Your task to perform on an android device: Open sound settings Image 0: 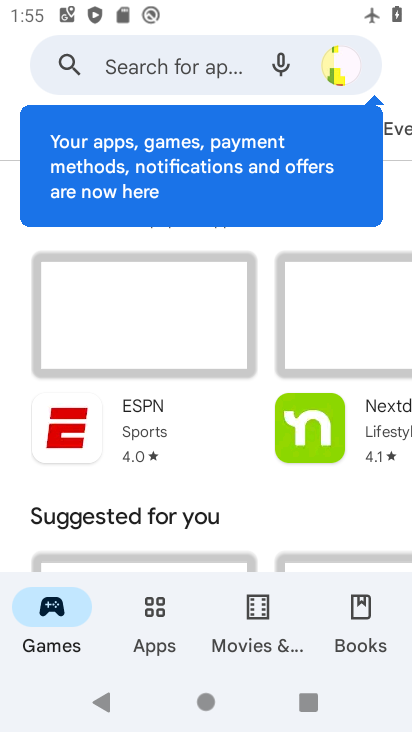
Step 0: press home button
Your task to perform on an android device: Open sound settings Image 1: 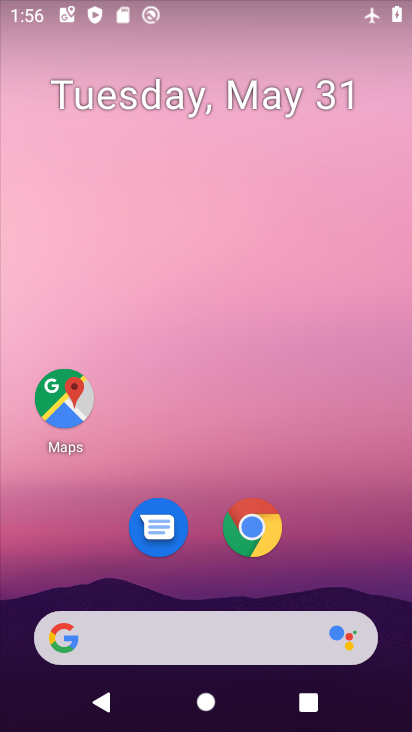
Step 1: drag from (362, 537) to (315, 65)
Your task to perform on an android device: Open sound settings Image 2: 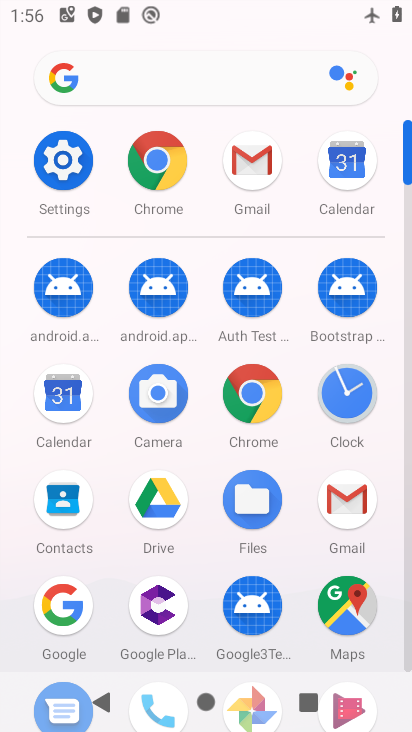
Step 2: click (64, 152)
Your task to perform on an android device: Open sound settings Image 3: 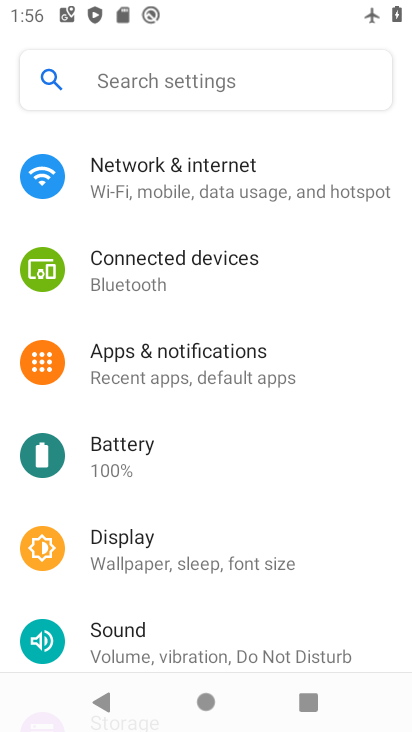
Step 3: drag from (184, 581) to (217, 274)
Your task to perform on an android device: Open sound settings Image 4: 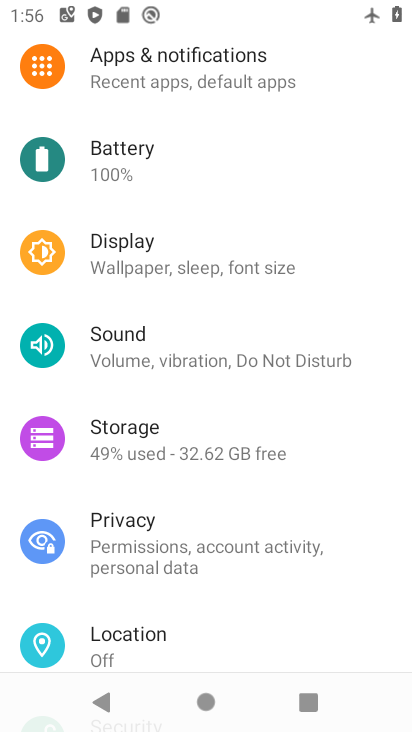
Step 4: click (138, 352)
Your task to perform on an android device: Open sound settings Image 5: 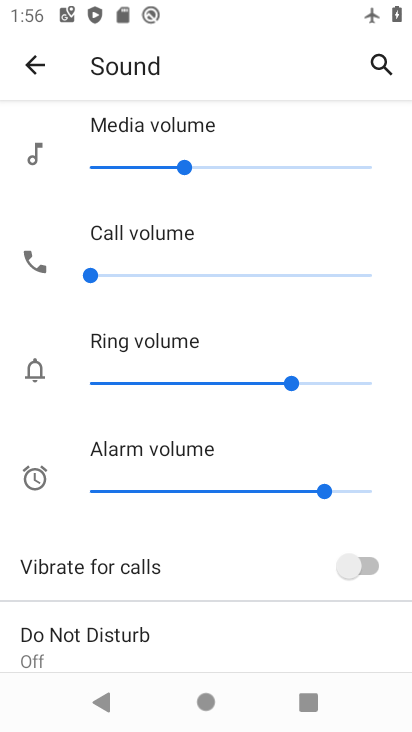
Step 5: task complete